Your task to perform on an android device: install app "LiveIn - Share Your Moment" Image 0: 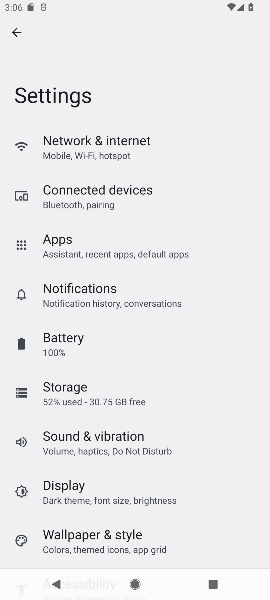
Step 0: press home button
Your task to perform on an android device: install app "LiveIn - Share Your Moment" Image 1: 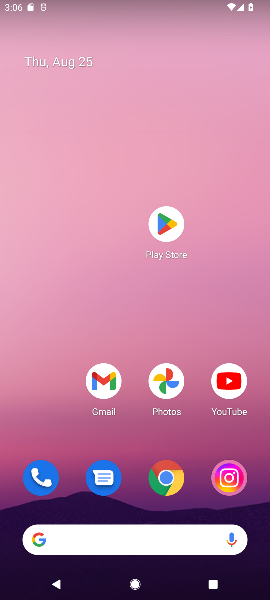
Step 1: click (165, 222)
Your task to perform on an android device: install app "LiveIn - Share Your Moment" Image 2: 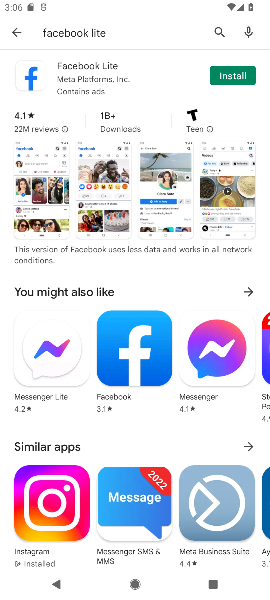
Step 2: click (217, 25)
Your task to perform on an android device: install app "LiveIn - Share Your Moment" Image 3: 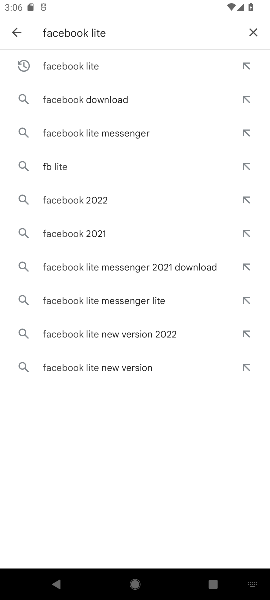
Step 3: click (249, 27)
Your task to perform on an android device: install app "LiveIn - Share Your Moment" Image 4: 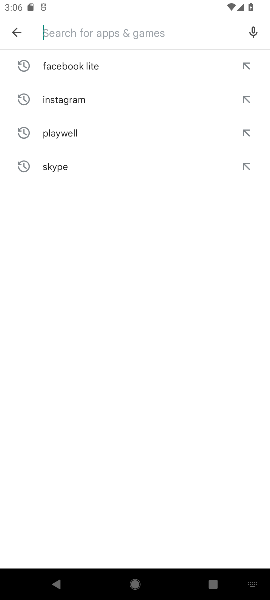
Step 4: type "LiveIn - Share Your Moment"
Your task to perform on an android device: install app "LiveIn - Share Your Moment" Image 5: 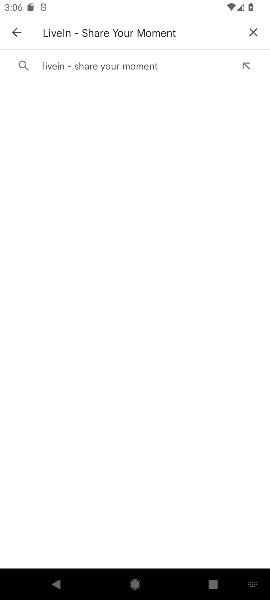
Step 5: click (142, 66)
Your task to perform on an android device: install app "LiveIn - Share Your Moment" Image 6: 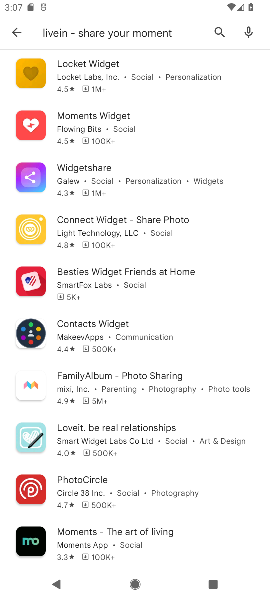
Step 6: task complete